Your task to perform on an android device: Show me the alarms in the clock app Image 0: 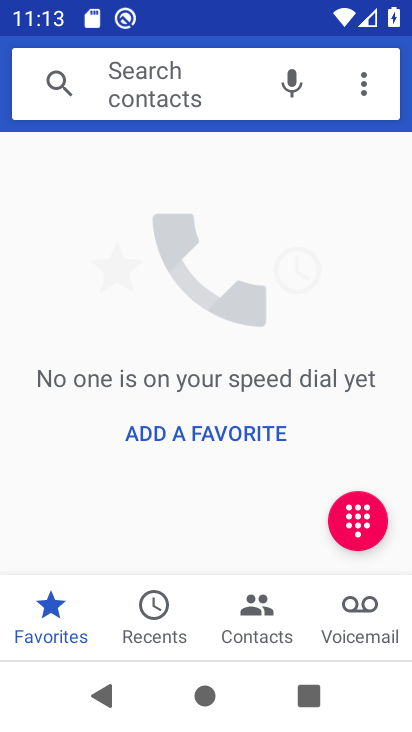
Step 0: press back button
Your task to perform on an android device: Show me the alarms in the clock app Image 1: 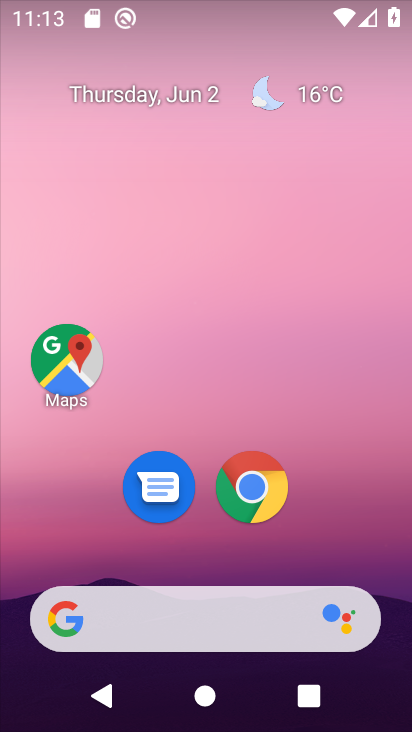
Step 1: drag from (329, 521) to (237, 41)
Your task to perform on an android device: Show me the alarms in the clock app Image 2: 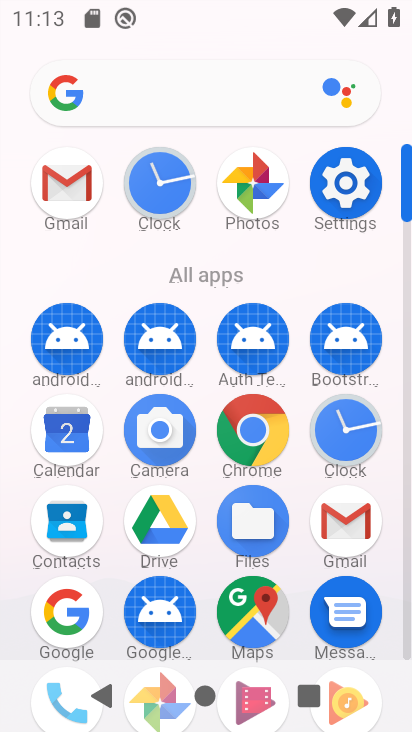
Step 2: click (159, 182)
Your task to perform on an android device: Show me the alarms in the clock app Image 3: 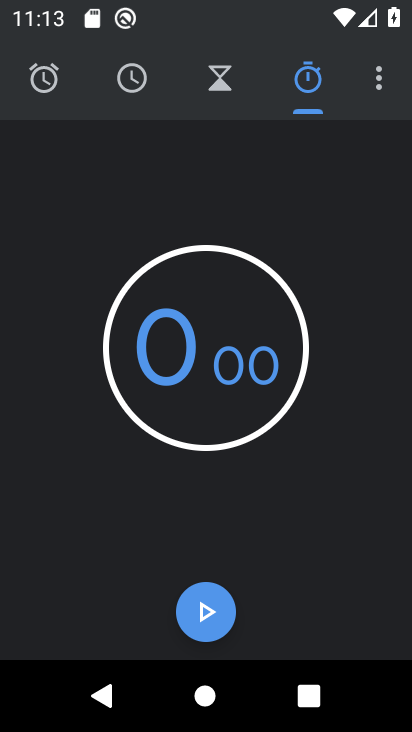
Step 3: click (48, 84)
Your task to perform on an android device: Show me the alarms in the clock app Image 4: 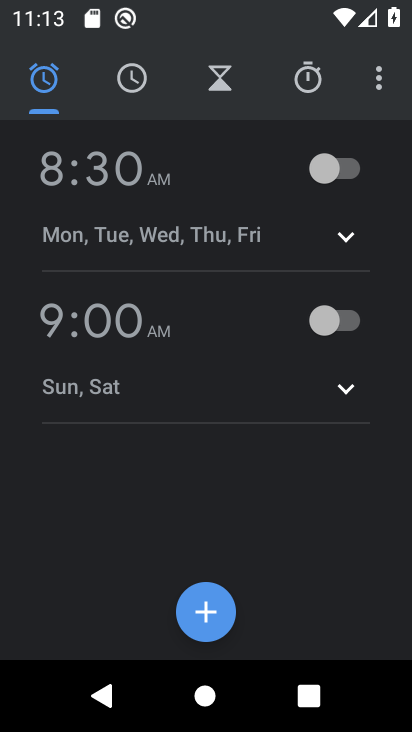
Step 4: click (345, 384)
Your task to perform on an android device: Show me the alarms in the clock app Image 5: 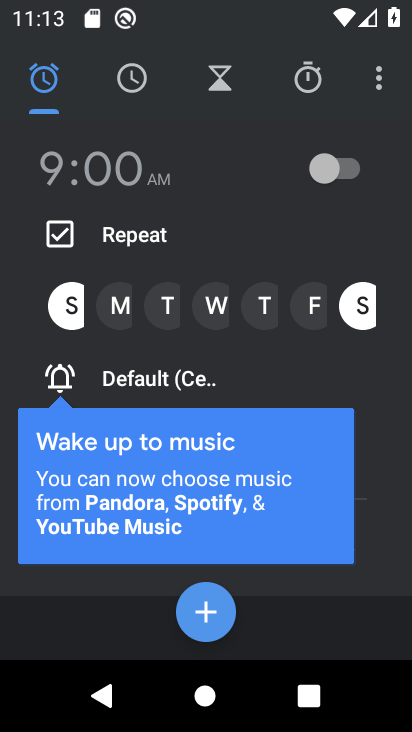
Step 5: click (344, 103)
Your task to perform on an android device: Show me the alarms in the clock app Image 6: 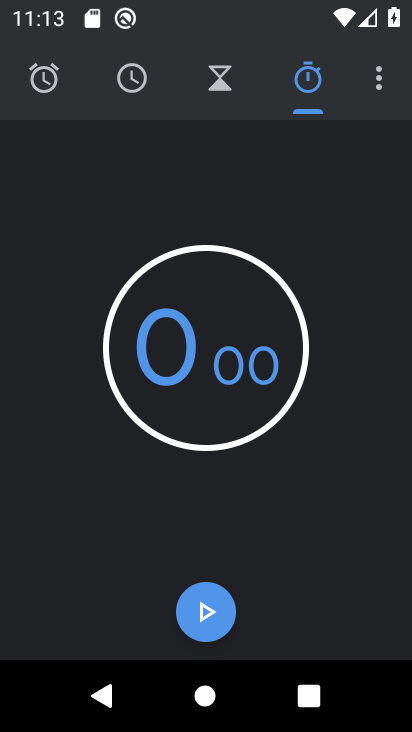
Step 6: click (51, 86)
Your task to perform on an android device: Show me the alarms in the clock app Image 7: 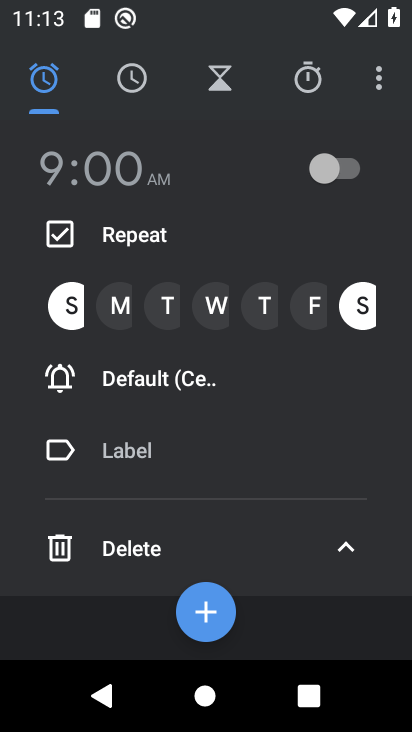
Step 7: click (347, 545)
Your task to perform on an android device: Show me the alarms in the clock app Image 8: 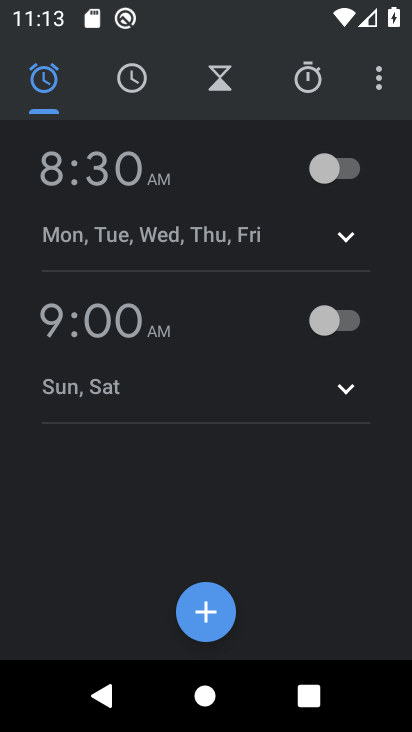
Step 8: task complete